Your task to perform on an android device: What's on my calendar tomorrow? Image 0: 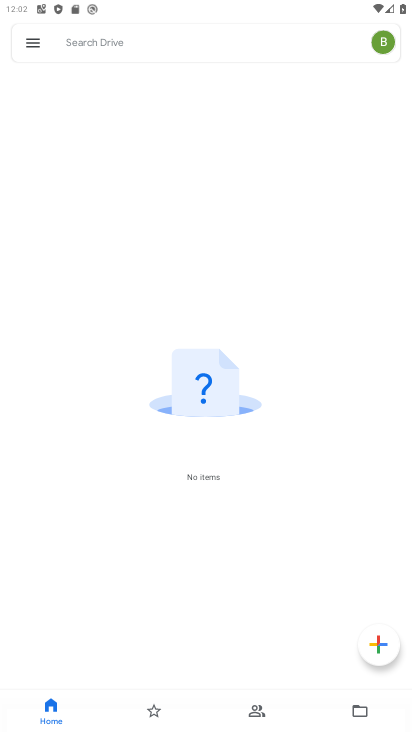
Step 0: press home button
Your task to perform on an android device: What's on my calendar tomorrow? Image 1: 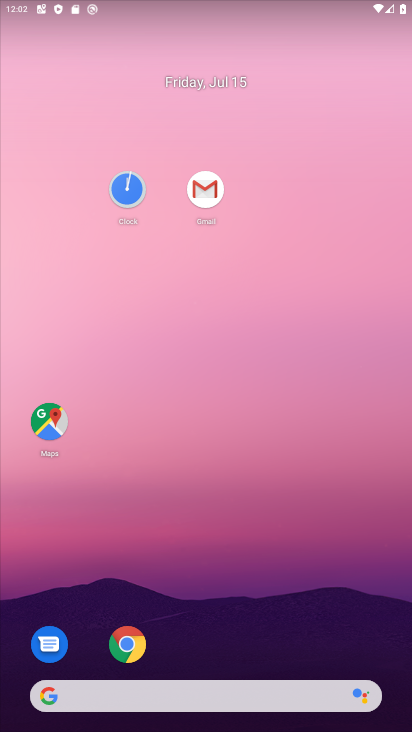
Step 1: drag from (249, 632) to (250, 196)
Your task to perform on an android device: What's on my calendar tomorrow? Image 2: 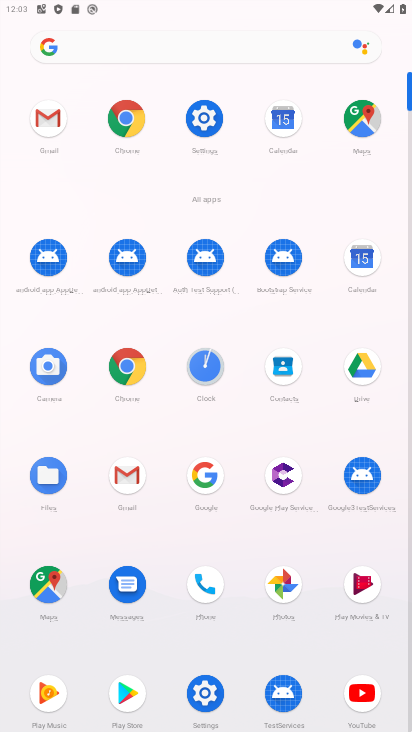
Step 2: click (364, 264)
Your task to perform on an android device: What's on my calendar tomorrow? Image 3: 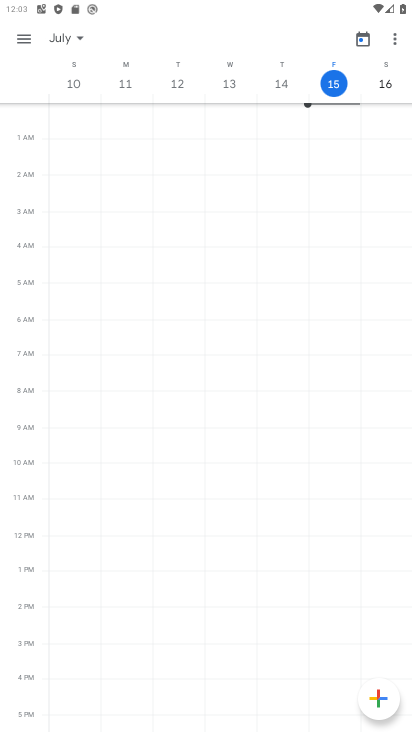
Step 3: click (383, 85)
Your task to perform on an android device: What's on my calendar tomorrow? Image 4: 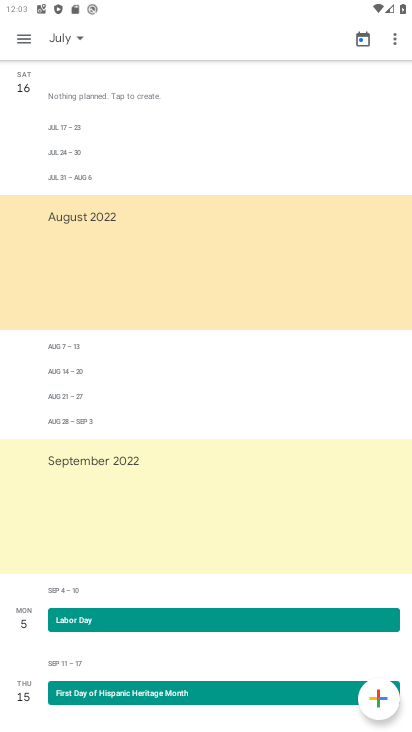
Step 4: task complete